Your task to perform on an android device: Is it going to rain tomorrow? Image 0: 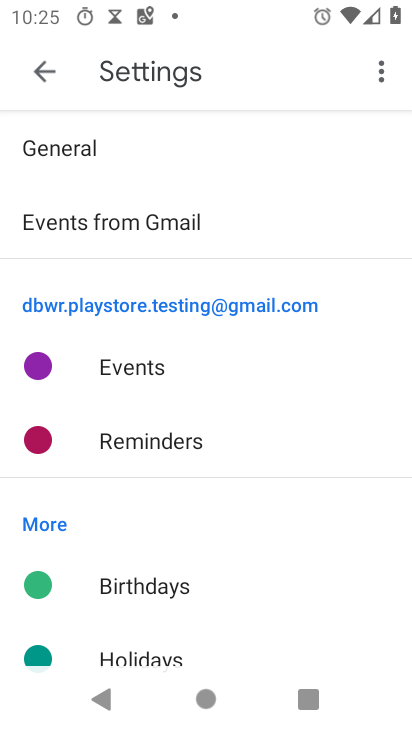
Step 0: press home button
Your task to perform on an android device: Is it going to rain tomorrow? Image 1: 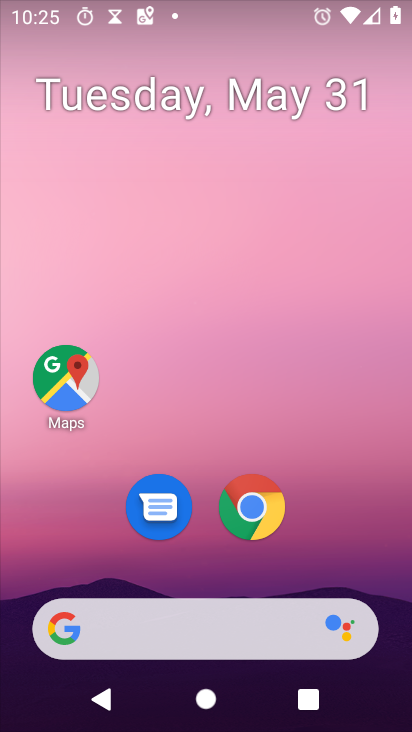
Step 1: click (149, 612)
Your task to perform on an android device: Is it going to rain tomorrow? Image 2: 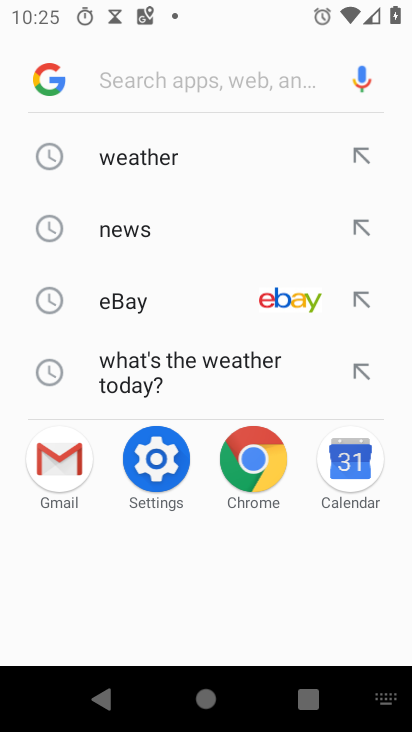
Step 2: click (165, 161)
Your task to perform on an android device: Is it going to rain tomorrow? Image 3: 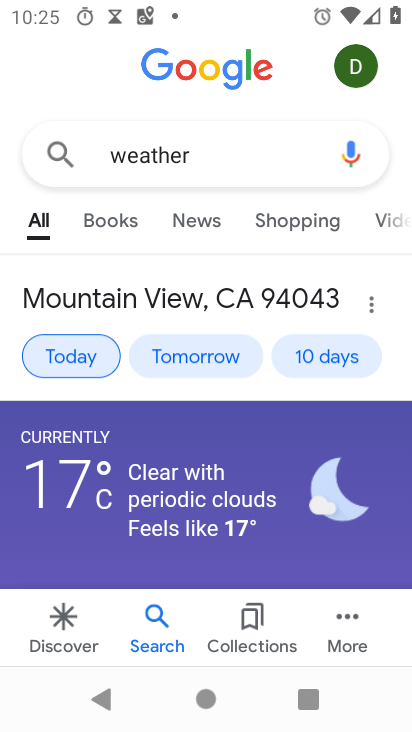
Step 3: task complete